Your task to perform on an android device: Check the settings for the Uber app Image 0: 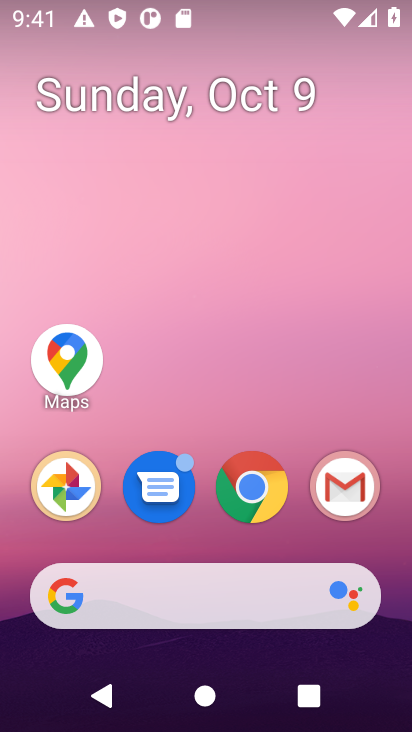
Step 0: drag from (275, 542) to (370, 9)
Your task to perform on an android device: Check the settings for the Uber app Image 1: 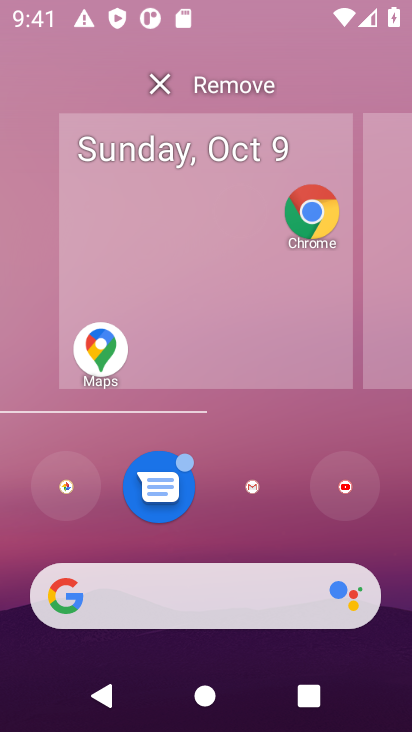
Step 1: click (154, 75)
Your task to perform on an android device: Check the settings for the Uber app Image 2: 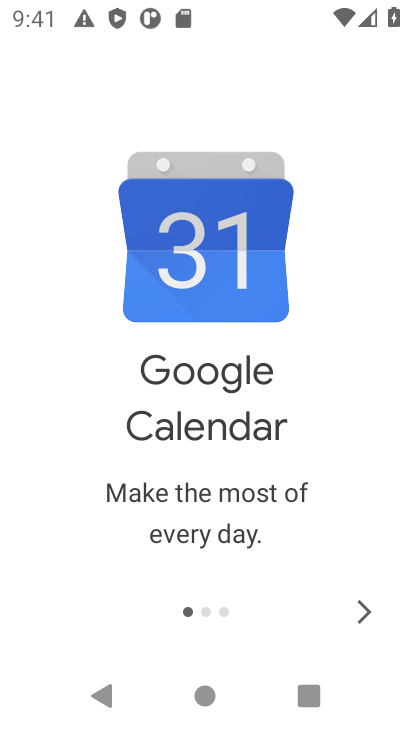
Step 2: click (367, 626)
Your task to perform on an android device: Check the settings for the Uber app Image 3: 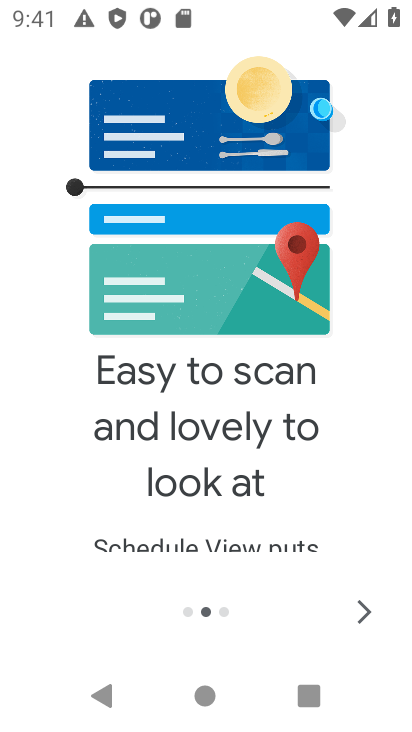
Step 3: click (369, 617)
Your task to perform on an android device: Check the settings for the Uber app Image 4: 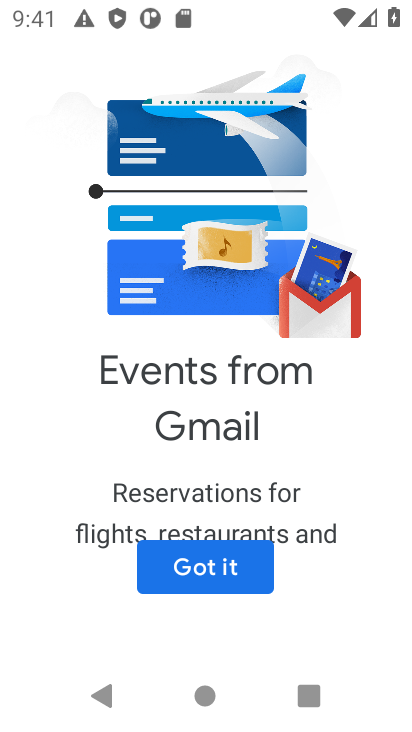
Step 4: click (256, 581)
Your task to perform on an android device: Check the settings for the Uber app Image 5: 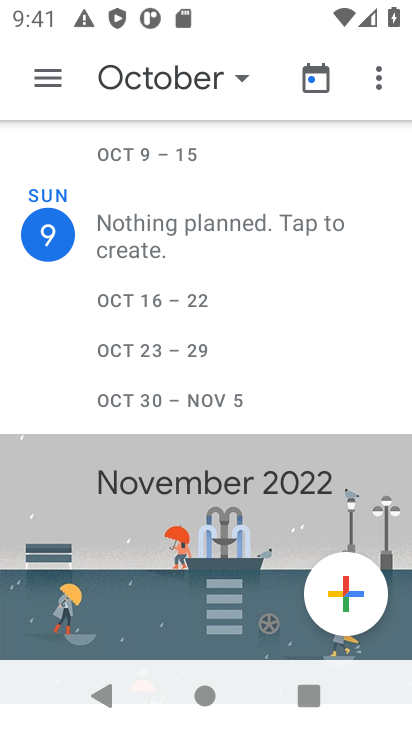
Step 5: task complete